Your task to perform on an android device: Open battery settings Image 0: 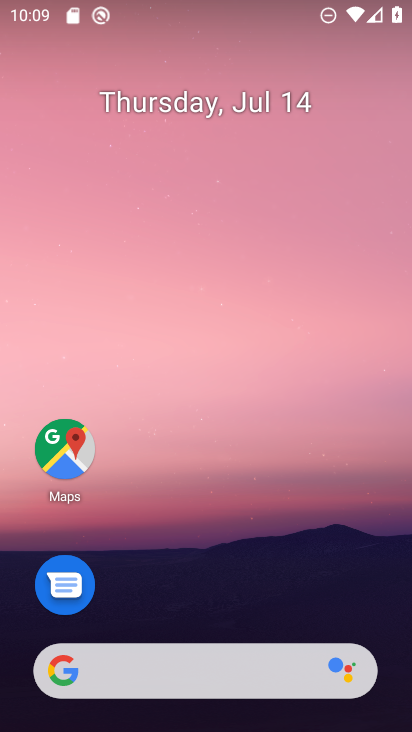
Step 0: drag from (225, 614) to (219, 18)
Your task to perform on an android device: Open battery settings Image 1: 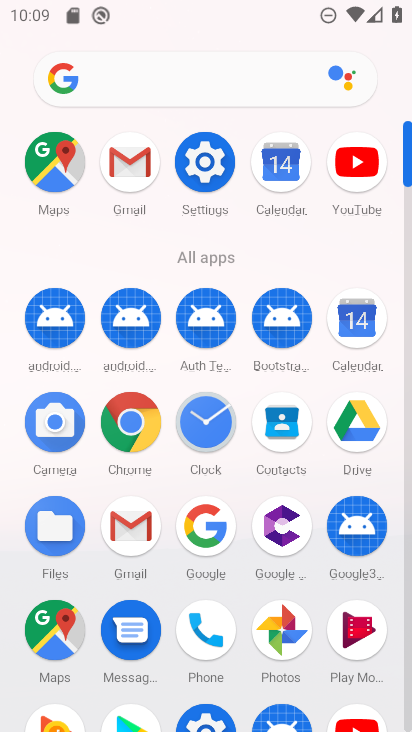
Step 1: click (217, 170)
Your task to perform on an android device: Open battery settings Image 2: 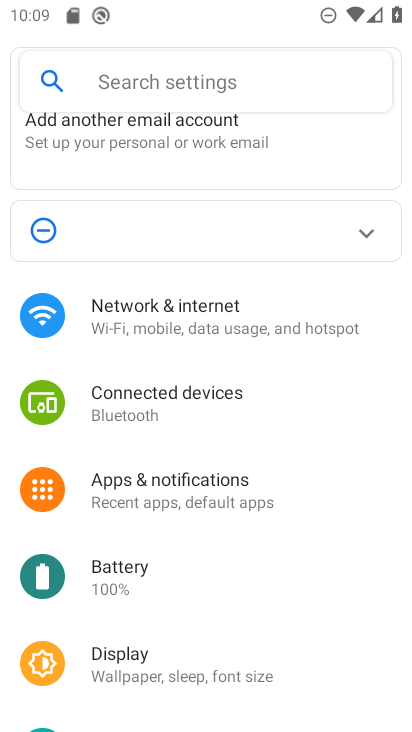
Step 2: click (217, 347)
Your task to perform on an android device: Open battery settings Image 3: 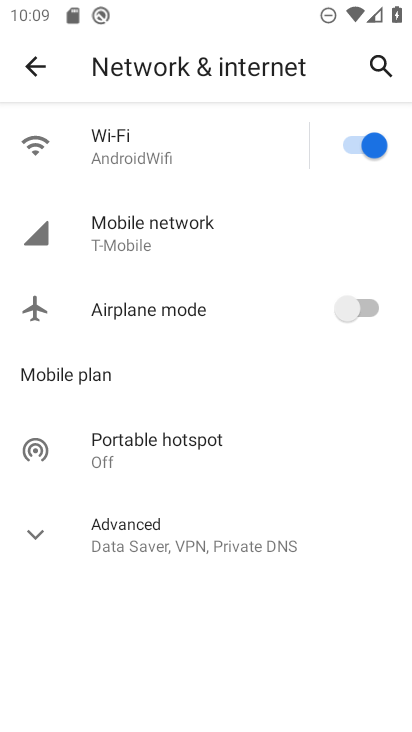
Step 3: click (33, 75)
Your task to perform on an android device: Open battery settings Image 4: 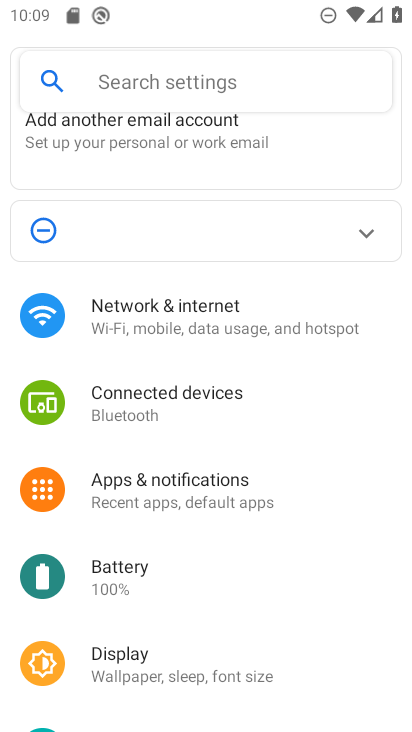
Step 4: drag from (240, 578) to (106, 190)
Your task to perform on an android device: Open battery settings Image 5: 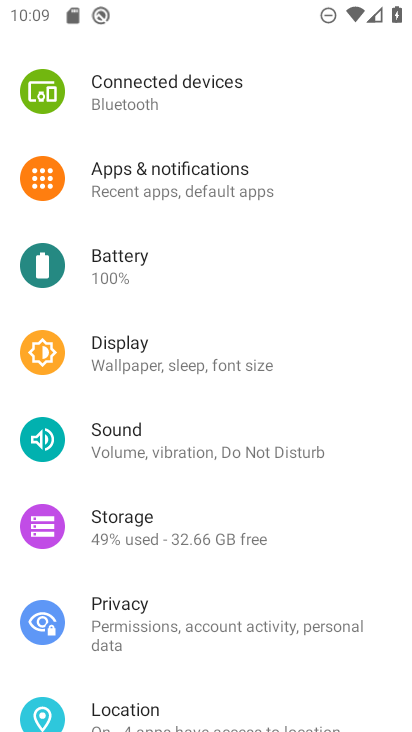
Step 5: click (121, 251)
Your task to perform on an android device: Open battery settings Image 6: 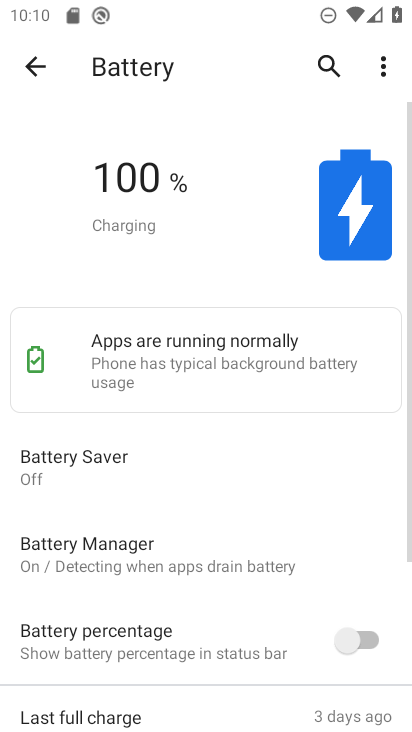
Step 6: task complete